Your task to perform on an android device: see tabs open on other devices in the chrome app Image 0: 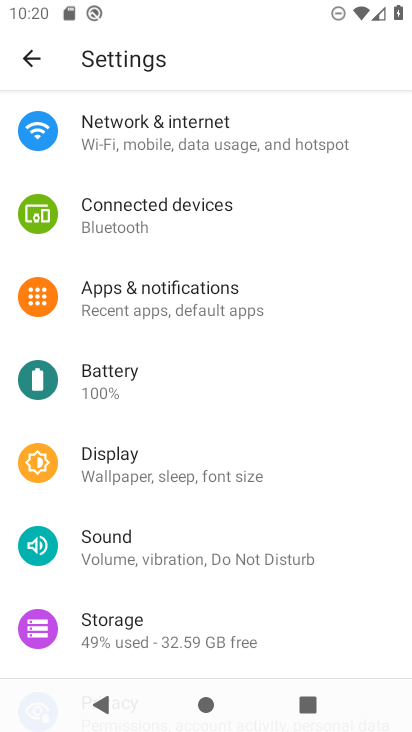
Step 0: press home button
Your task to perform on an android device: see tabs open on other devices in the chrome app Image 1: 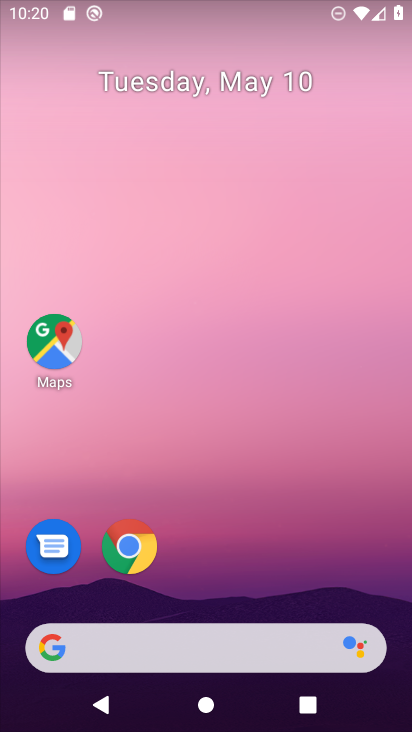
Step 1: click (133, 546)
Your task to perform on an android device: see tabs open on other devices in the chrome app Image 2: 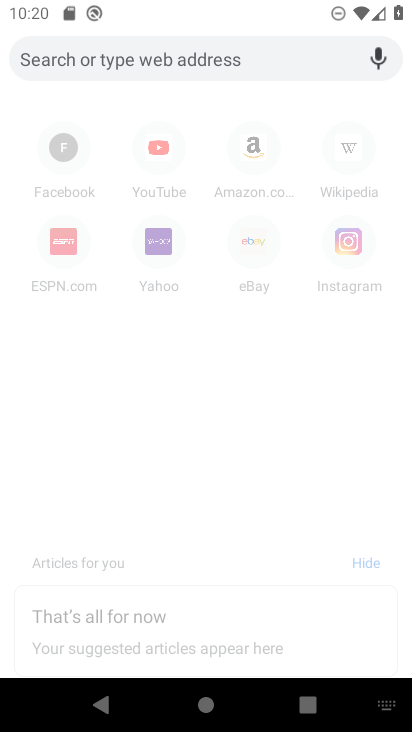
Step 2: task complete